Your task to perform on an android device: Go to internet settings Image 0: 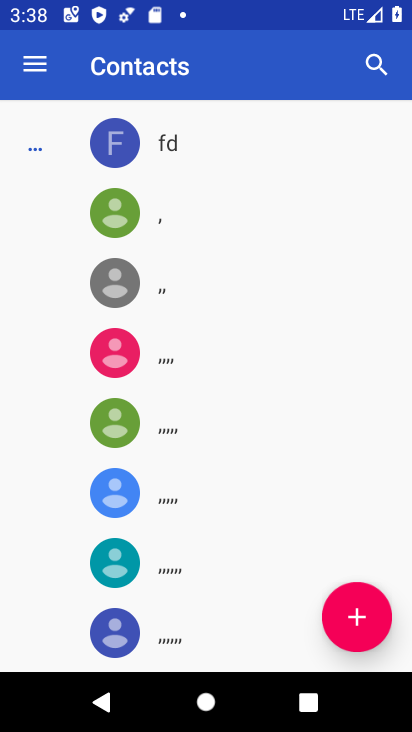
Step 0: press home button
Your task to perform on an android device: Go to internet settings Image 1: 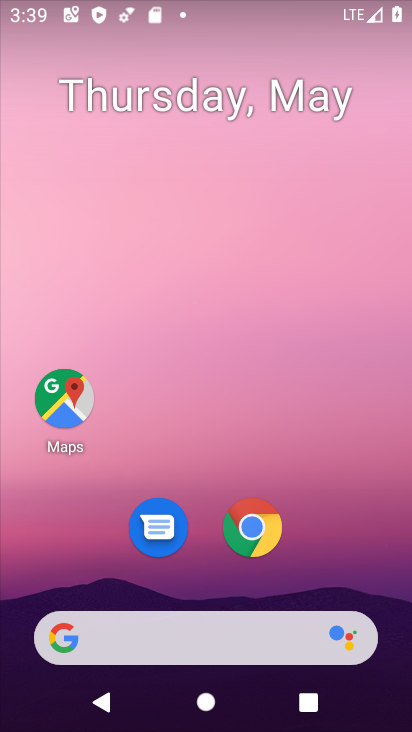
Step 1: drag from (403, 613) to (328, 86)
Your task to perform on an android device: Go to internet settings Image 2: 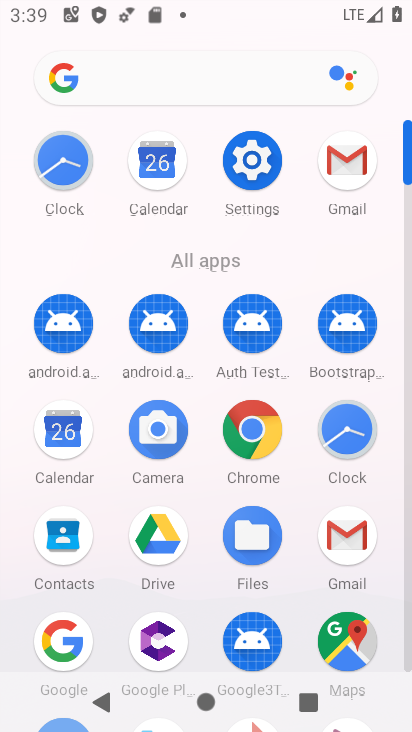
Step 2: click (409, 654)
Your task to perform on an android device: Go to internet settings Image 3: 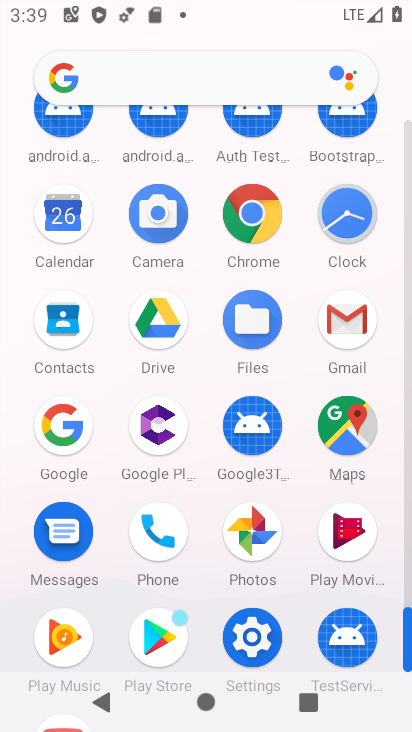
Step 3: click (251, 639)
Your task to perform on an android device: Go to internet settings Image 4: 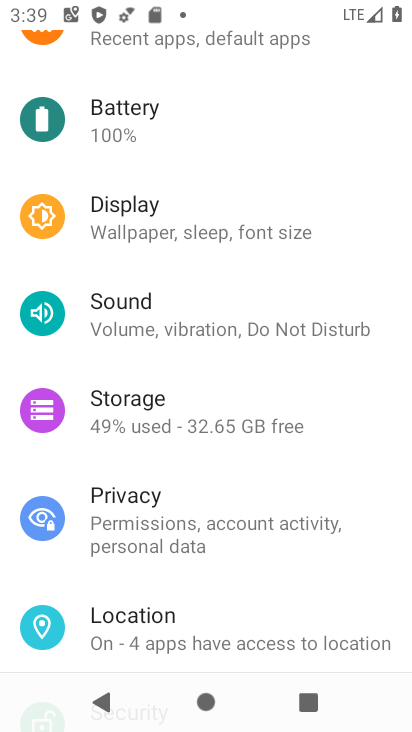
Step 4: drag from (338, 101) to (363, 487)
Your task to perform on an android device: Go to internet settings Image 5: 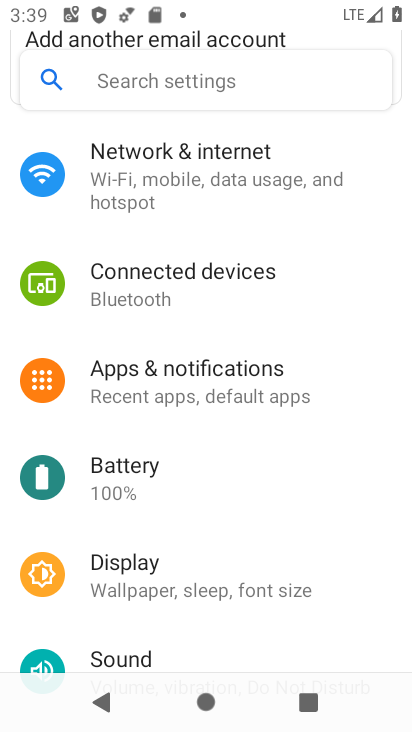
Step 5: click (131, 188)
Your task to perform on an android device: Go to internet settings Image 6: 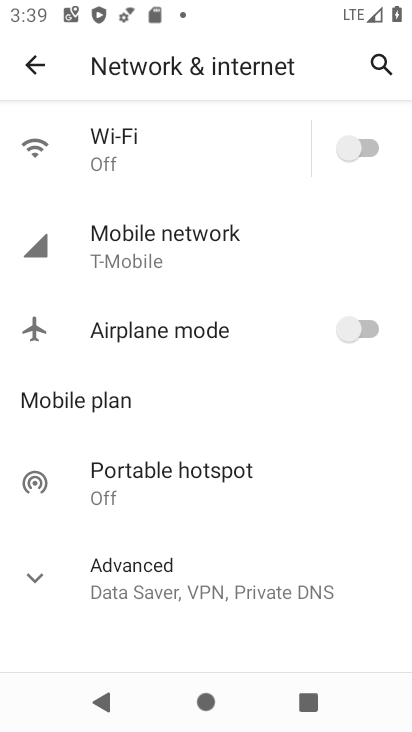
Step 6: click (101, 155)
Your task to perform on an android device: Go to internet settings Image 7: 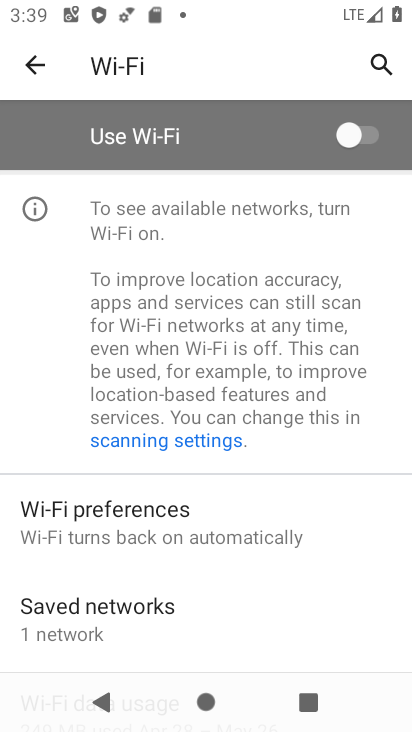
Step 7: task complete